Your task to perform on an android device: Go to ESPN.com Image 0: 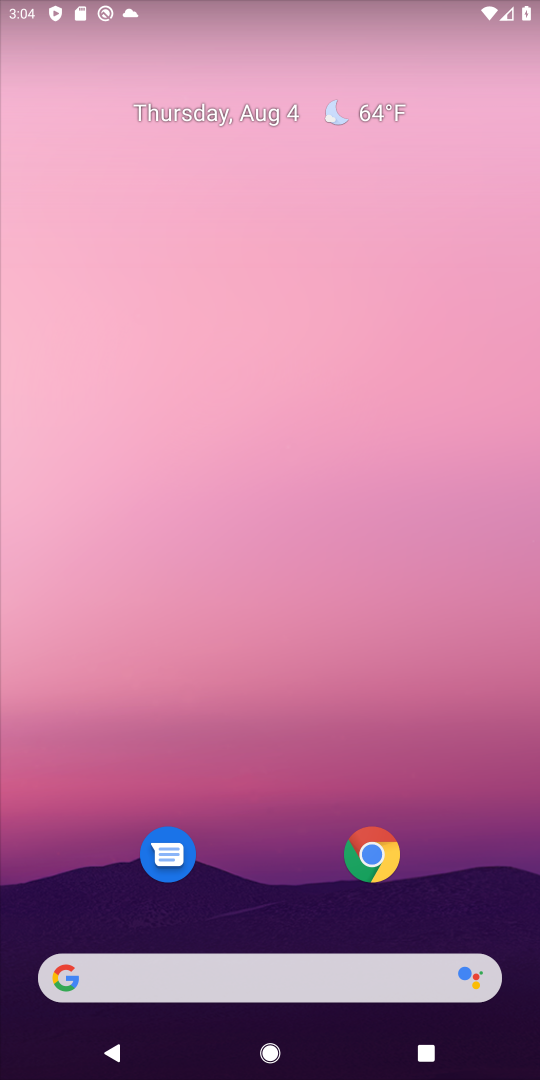
Step 0: click (261, 973)
Your task to perform on an android device: Go to ESPN.com Image 1: 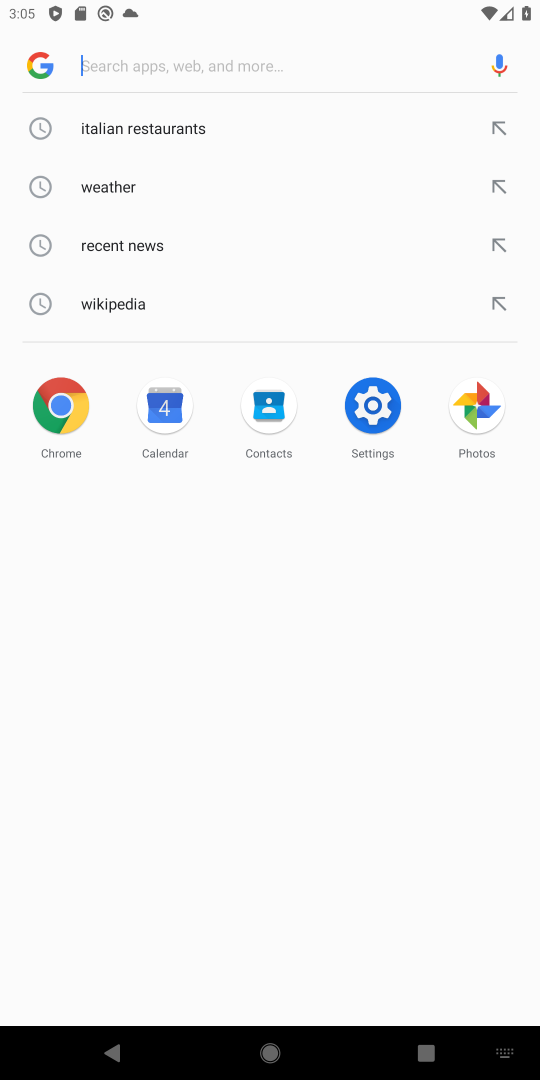
Step 1: type " ESPN.com"
Your task to perform on an android device: Go to ESPN.com Image 2: 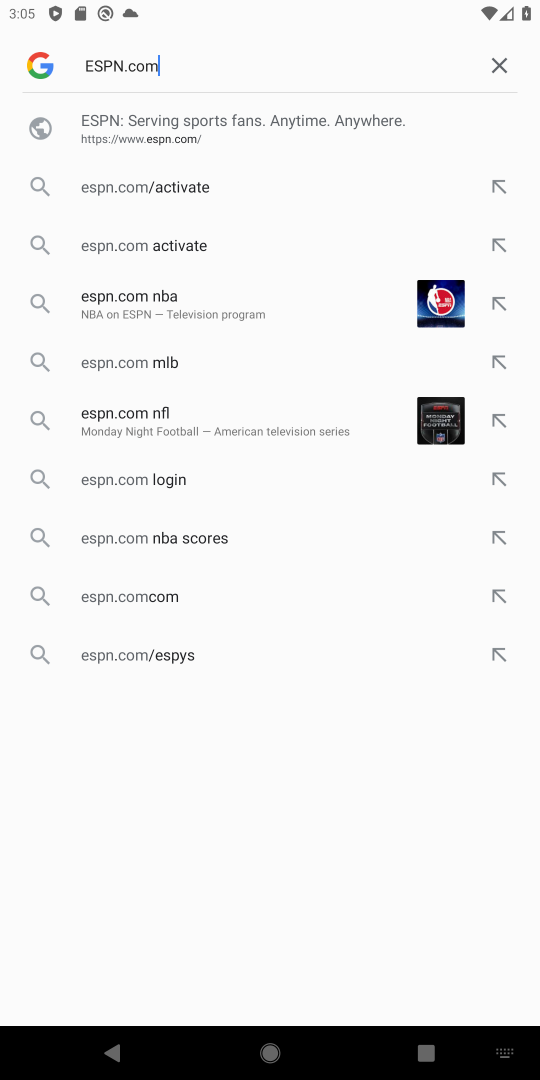
Step 2: press enter
Your task to perform on an android device: Go to ESPN.com Image 3: 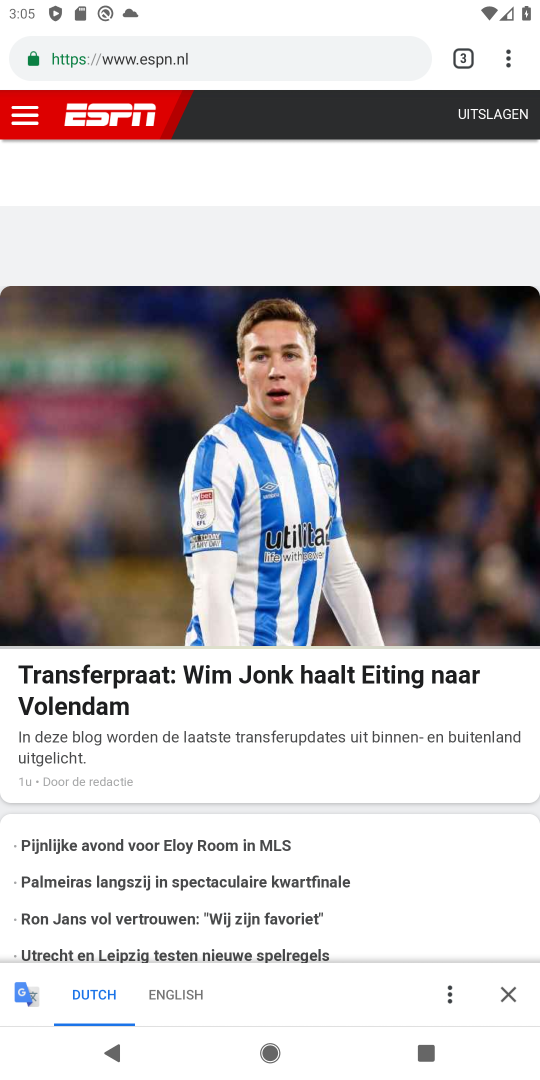
Step 3: task complete